Your task to perform on an android device: Open maps Image 0: 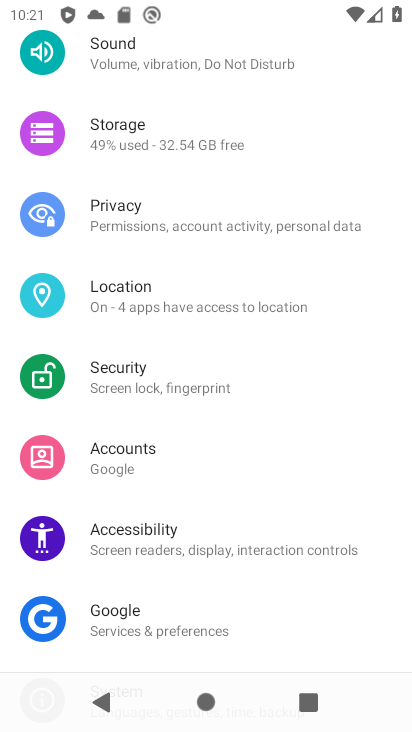
Step 0: drag from (330, 480) to (371, 651)
Your task to perform on an android device: Open maps Image 1: 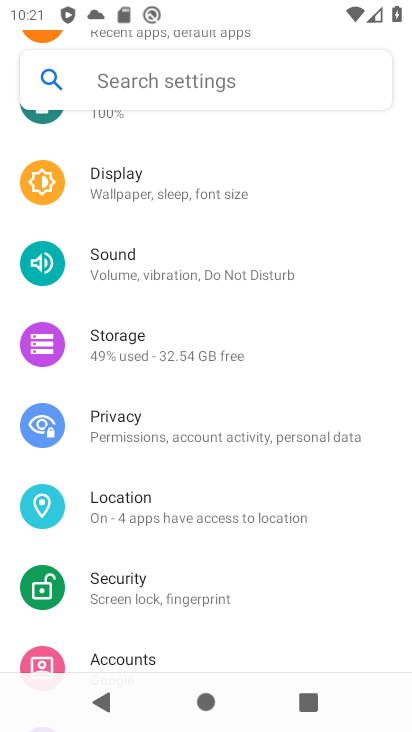
Step 1: press home button
Your task to perform on an android device: Open maps Image 2: 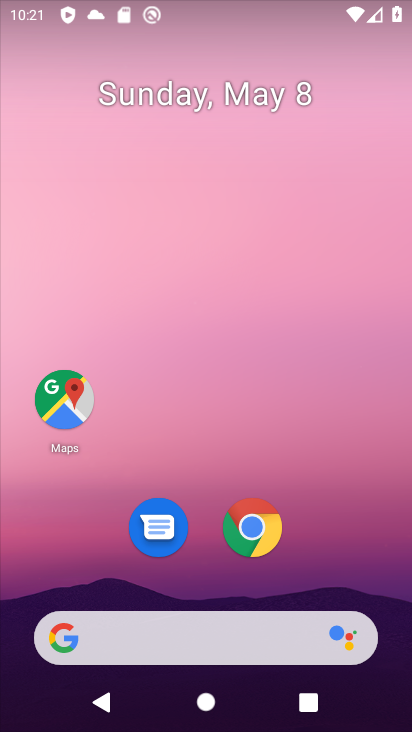
Step 2: click (78, 403)
Your task to perform on an android device: Open maps Image 3: 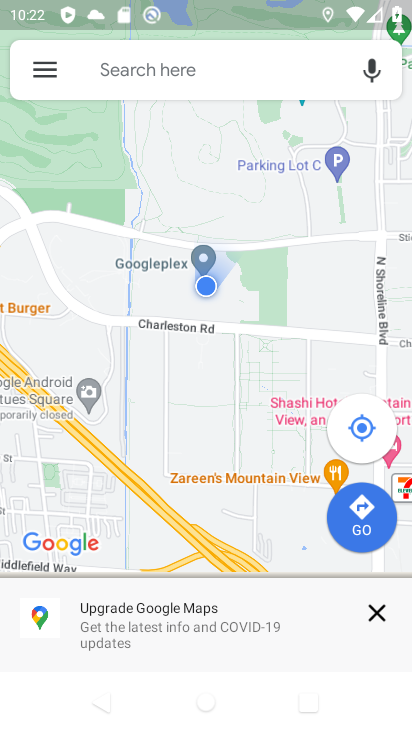
Step 3: task complete